Your task to perform on an android device: Show me popular games on the Play Store Image 0: 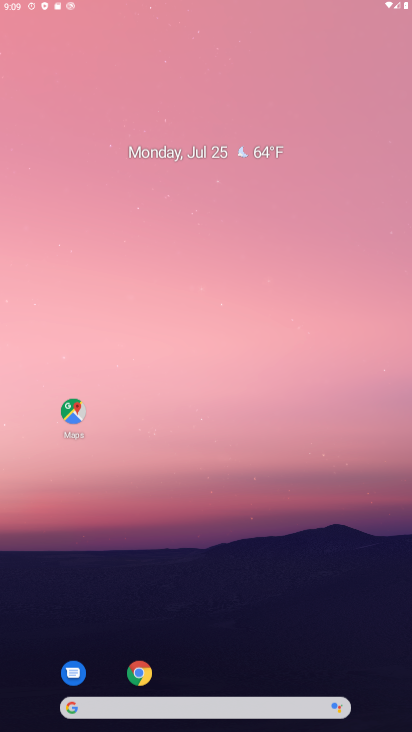
Step 0: press home button
Your task to perform on an android device: Show me popular games on the Play Store Image 1: 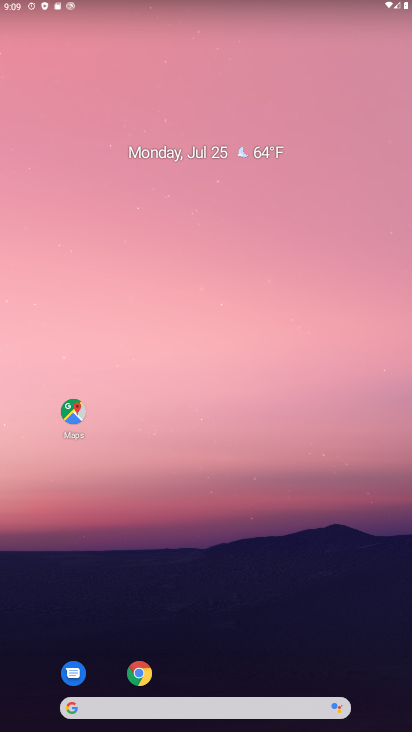
Step 1: drag from (244, 671) to (244, 133)
Your task to perform on an android device: Show me popular games on the Play Store Image 2: 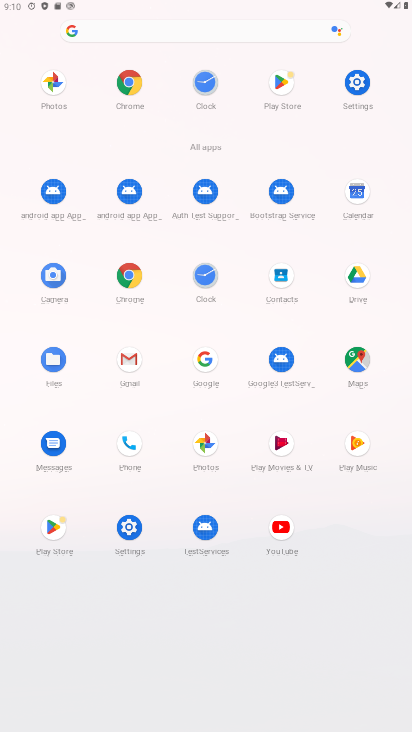
Step 2: click (51, 527)
Your task to perform on an android device: Show me popular games on the Play Store Image 3: 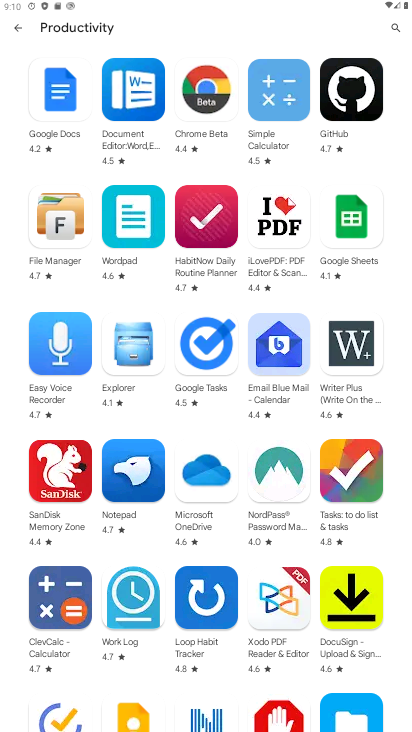
Step 3: click (12, 28)
Your task to perform on an android device: Show me popular games on the Play Store Image 4: 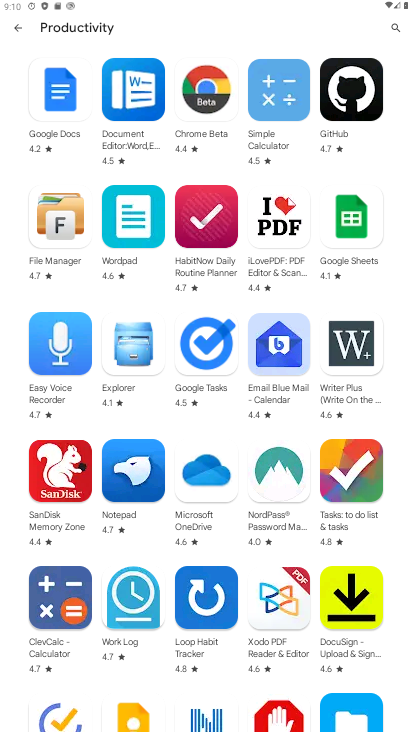
Step 4: click (13, 27)
Your task to perform on an android device: Show me popular games on the Play Store Image 5: 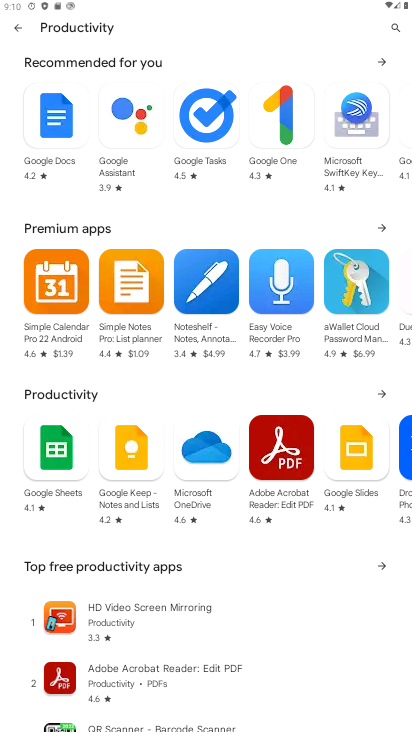
Step 5: click (20, 23)
Your task to perform on an android device: Show me popular games on the Play Store Image 6: 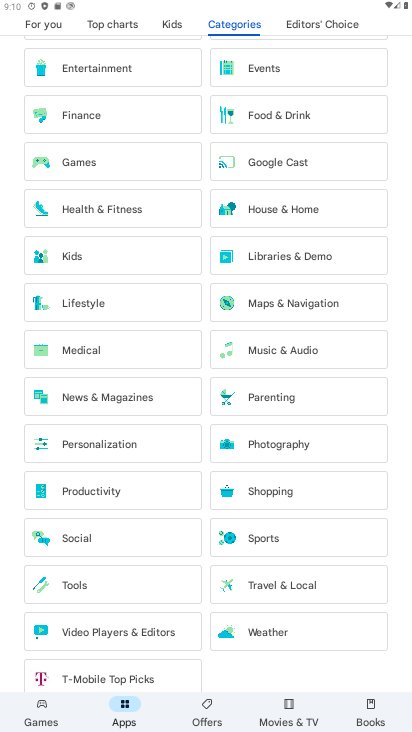
Step 6: click (30, 718)
Your task to perform on an android device: Show me popular games on the Play Store Image 7: 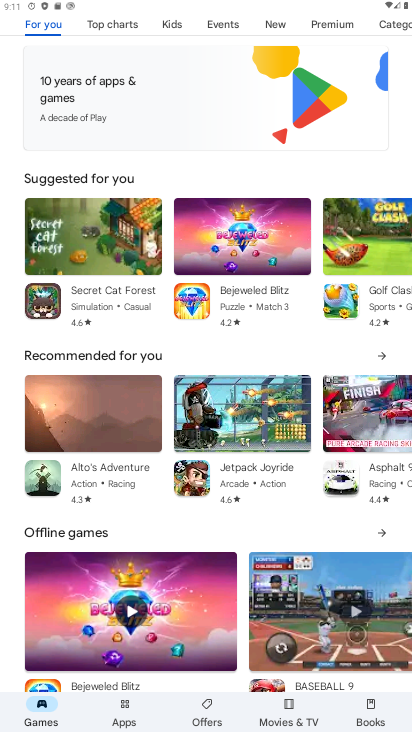
Step 7: task complete